Your task to perform on an android device: allow cookies in the chrome app Image 0: 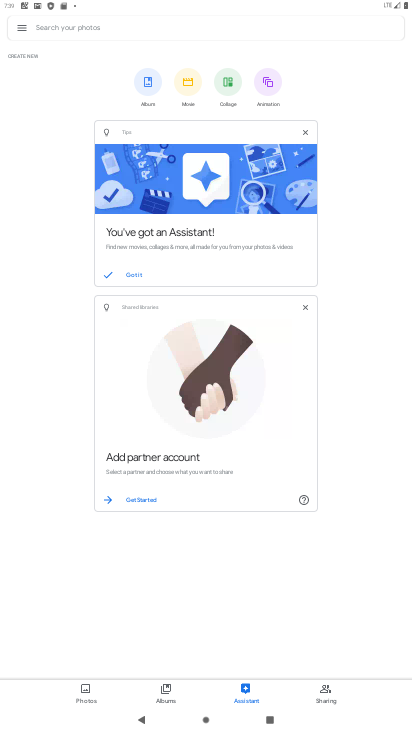
Step 0: press home button
Your task to perform on an android device: allow cookies in the chrome app Image 1: 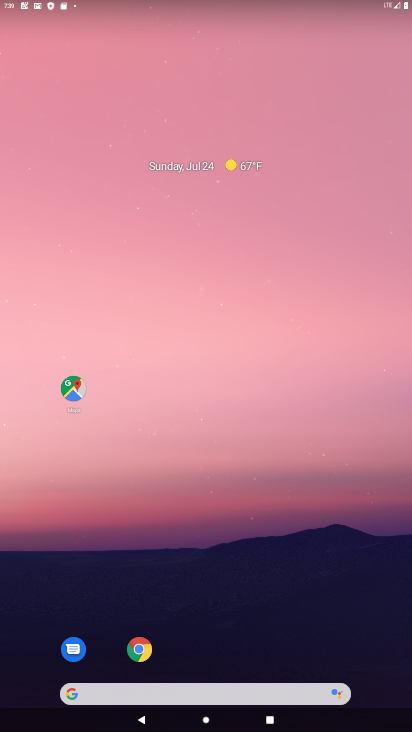
Step 1: drag from (214, 655) to (209, 112)
Your task to perform on an android device: allow cookies in the chrome app Image 2: 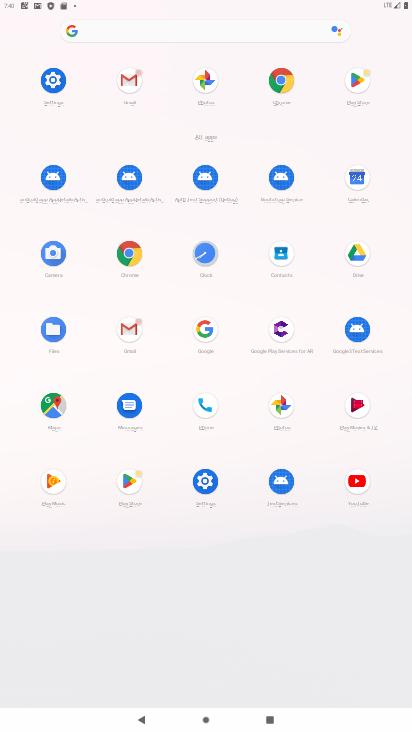
Step 2: click (120, 267)
Your task to perform on an android device: allow cookies in the chrome app Image 3: 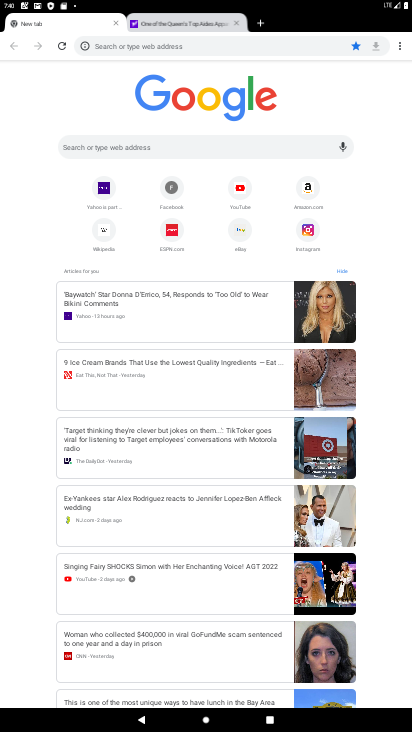
Step 3: click (399, 51)
Your task to perform on an android device: allow cookies in the chrome app Image 4: 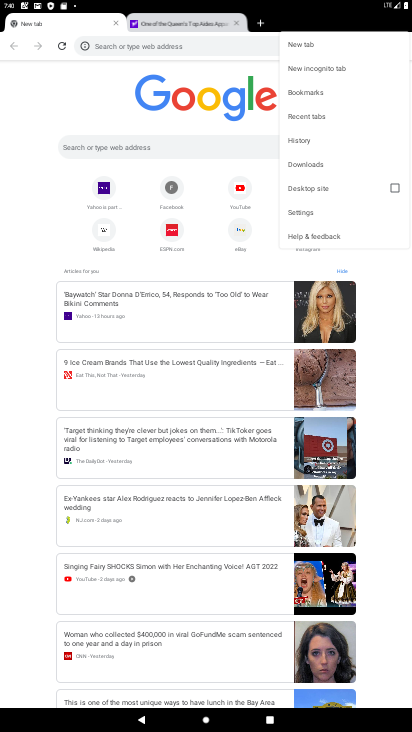
Step 4: click (296, 201)
Your task to perform on an android device: allow cookies in the chrome app Image 5: 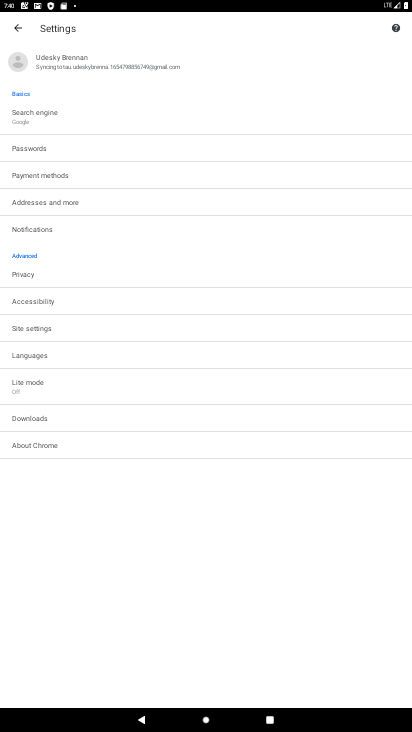
Step 5: click (34, 320)
Your task to perform on an android device: allow cookies in the chrome app Image 6: 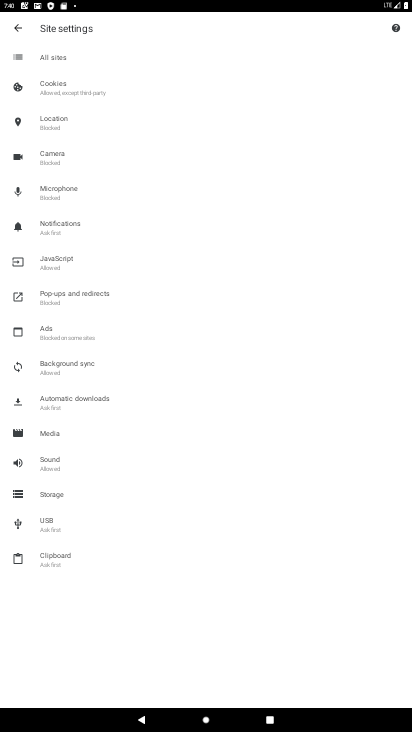
Step 6: click (34, 88)
Your task to perform on an android device: allow cookies in the chrome app Image 7: 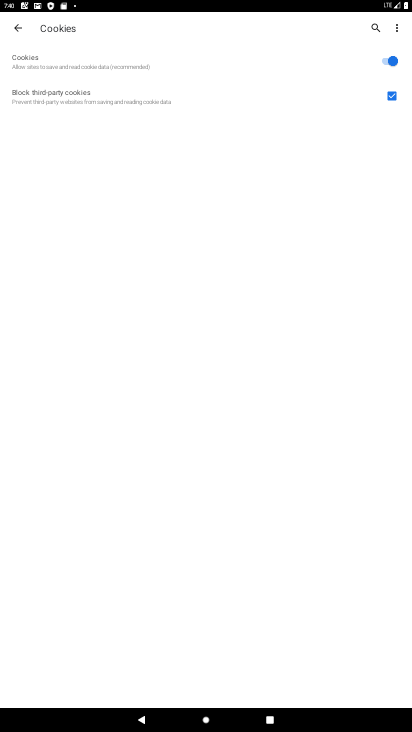
Step 7: task complete